Your task to perform on an android device: turn on airplane mode Image 0: 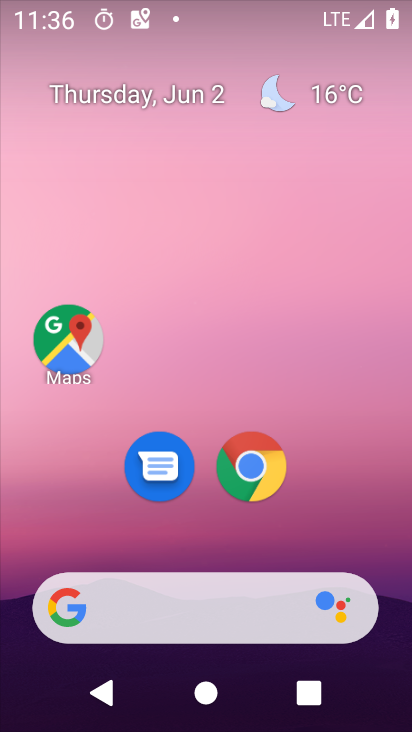
Step 0: drag from (201, 536) to (216, 175)
Your task to perform on an android device: turn on airplane mode Image 1: 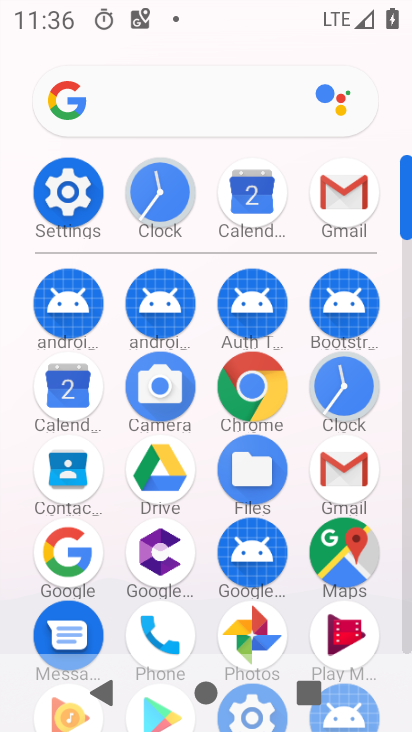
Step 1: click (58, 176)
Your task to perform on an android device: turn on airplane mode Image 2: 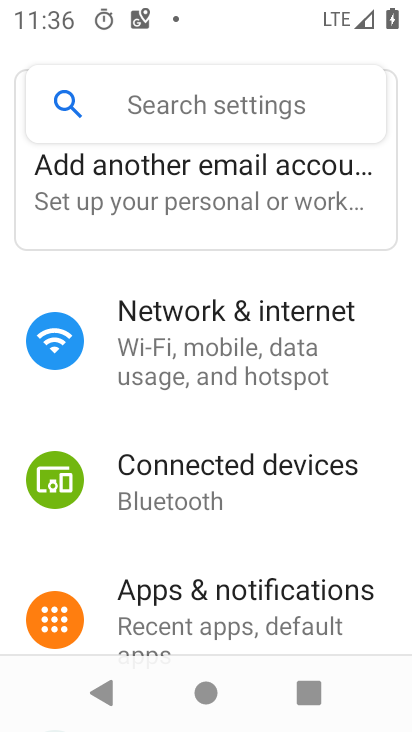
Step 2: click (173, 339)
Your task to perform on an android device: turn on airplane mode Image 3: 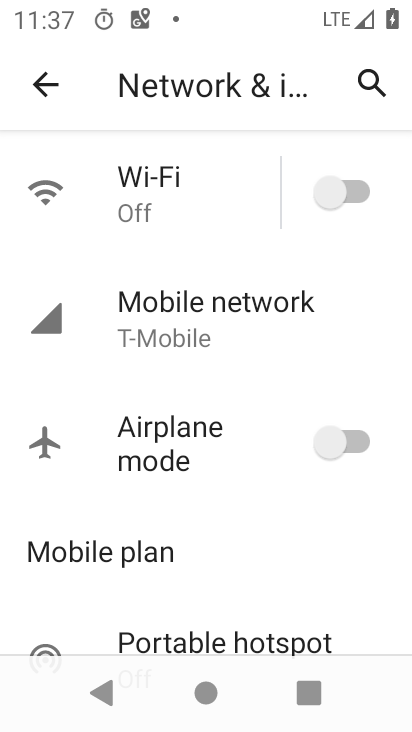
Step 3: click (362, 443)
Your task to perform on an android device: turn on airplane mode Image 4: 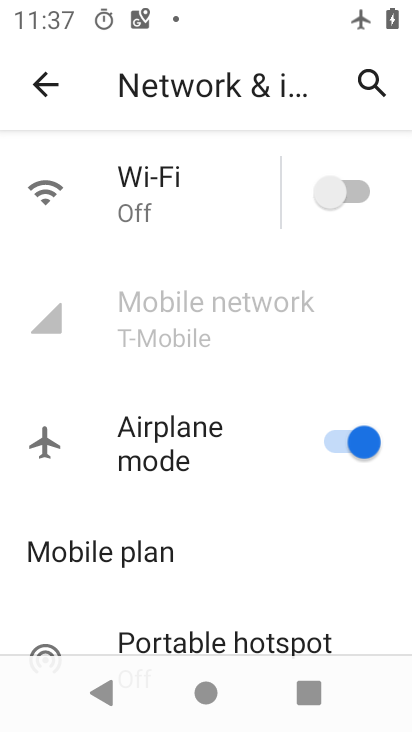
Step 4: task complete